Your task to perform on an android device: turn smart compose on in the gmail app Image 0: 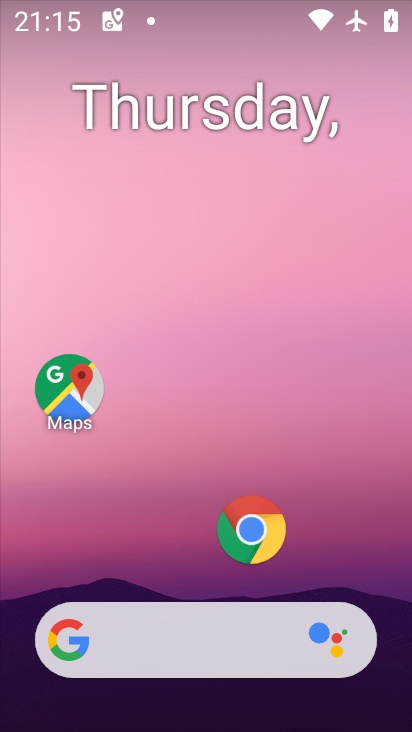
Step 0: press home button
Your task to perform on an android device: turn smart compose on in the gmail app Image 1: 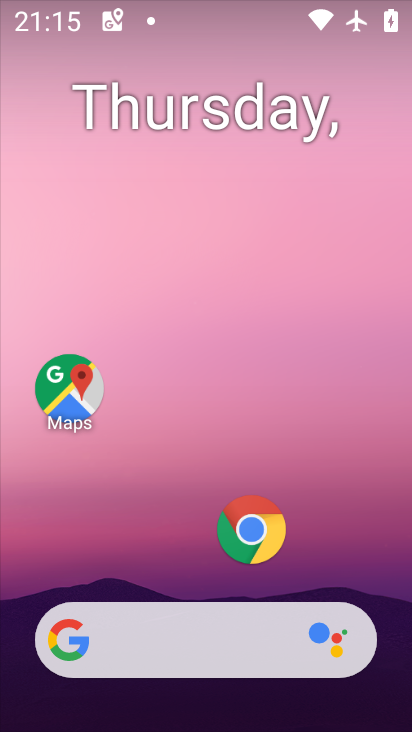
Step 1: drag from (205, 583) to (227, 122)
Your task to perform on an android device: turn smart compose on in the gmail app Image 2: 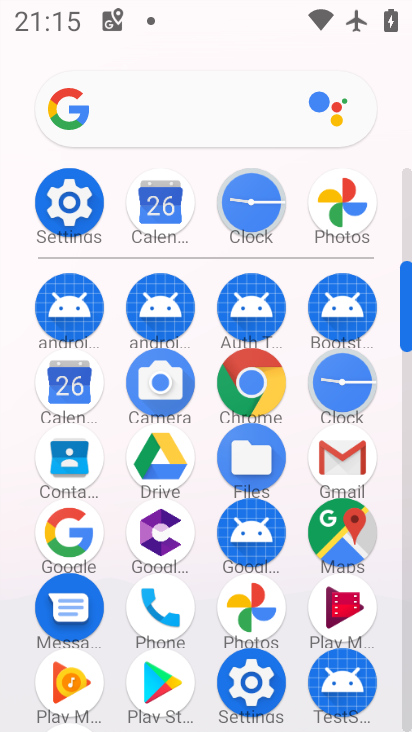
Step 2: click (340, 445)
Your task to perform on an android device: turn smart compose on in the gmail app Image 3: 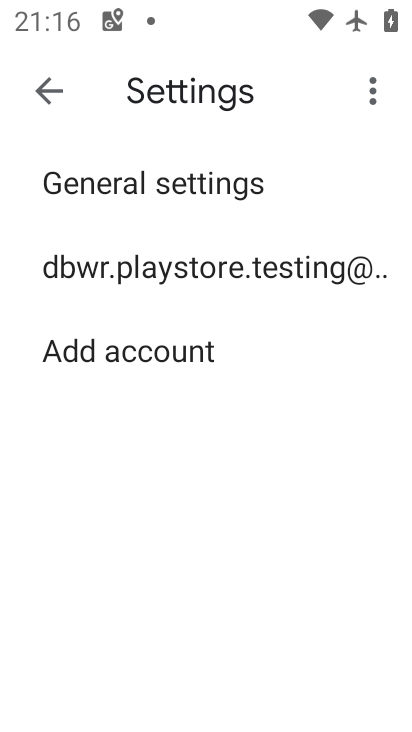
Step 3: click (251, 262)
Your task to perform on an android device: turn smart compose on in the gmail app Image 4: 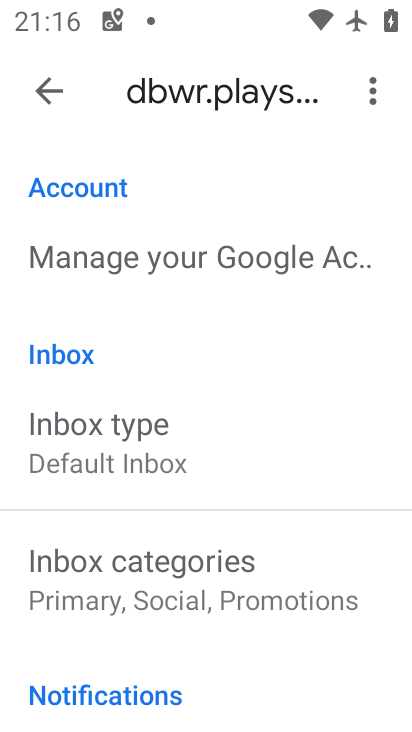
Step 4: task complete